Your task to perform on an android device: Open wifi settings Image 0: 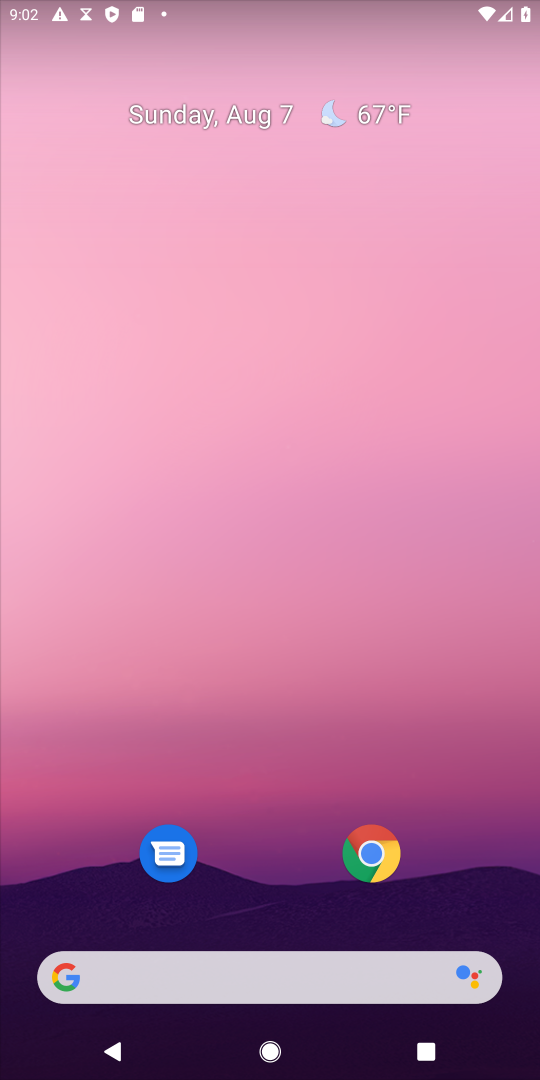
Step 0: drag from (200, 969) to (255, 546)
Your task to perform on an android device: Open wifi settings Image 1: 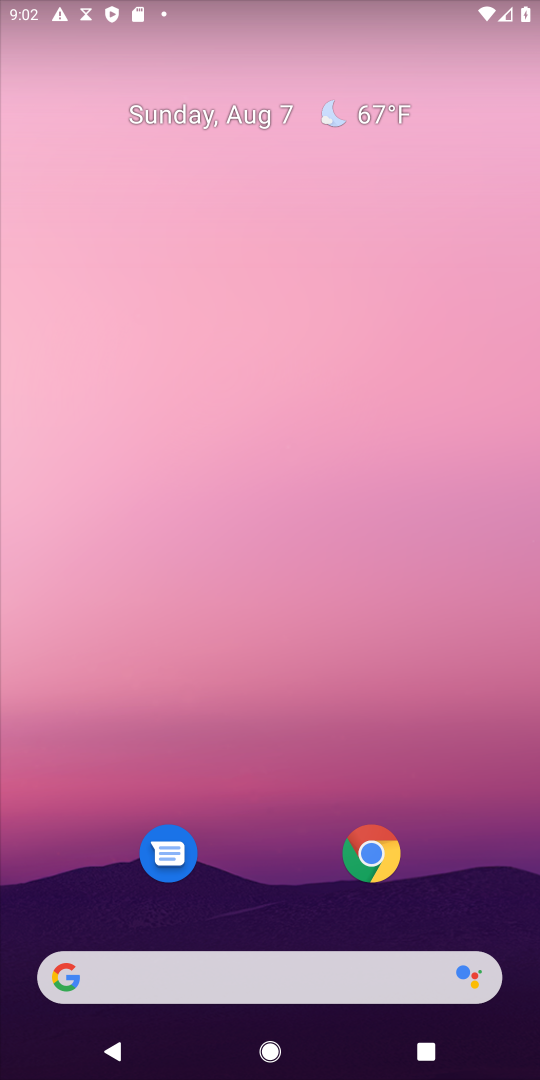
Step 1: drag from (260, 944) to (285, 72)
Your task to perform on an android device: Open wifi settings Image 2: 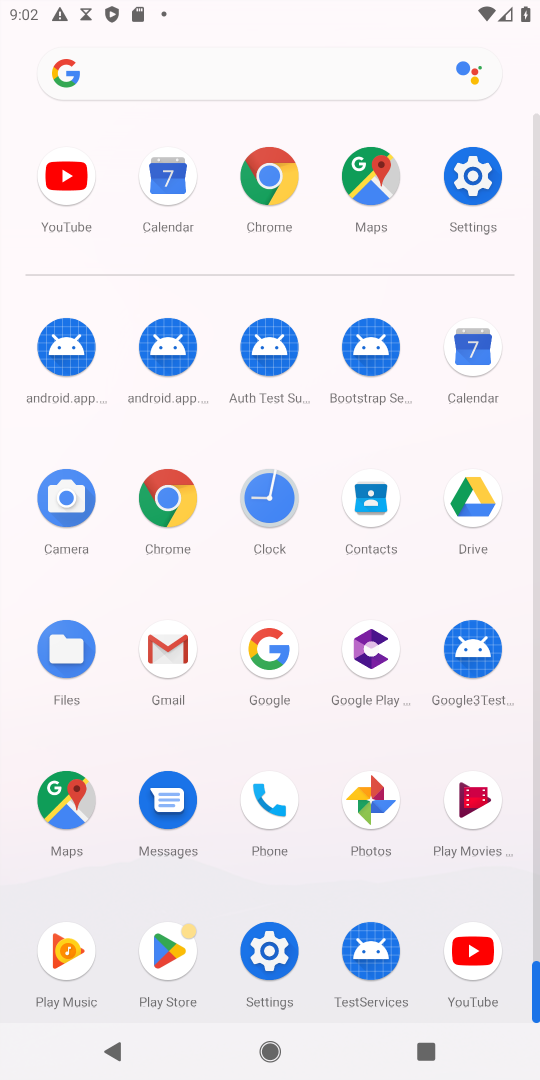
Step 2: click (489, 179)
Your task to perform on an android device: Open wifi settings Image 3: 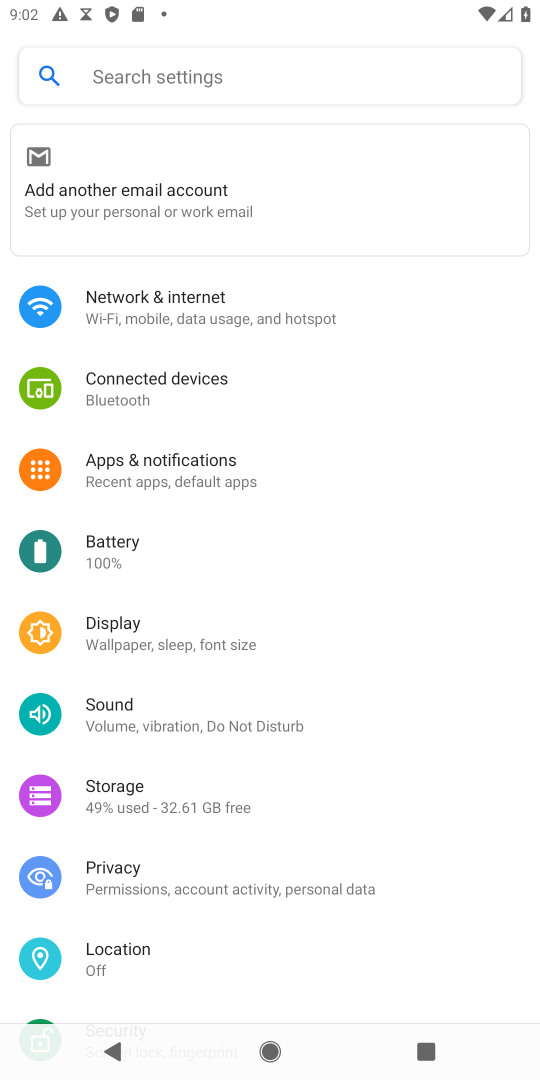
Step 3: click (190, 294)
Your task to perform on an android device: Open wifi settings Image 4: 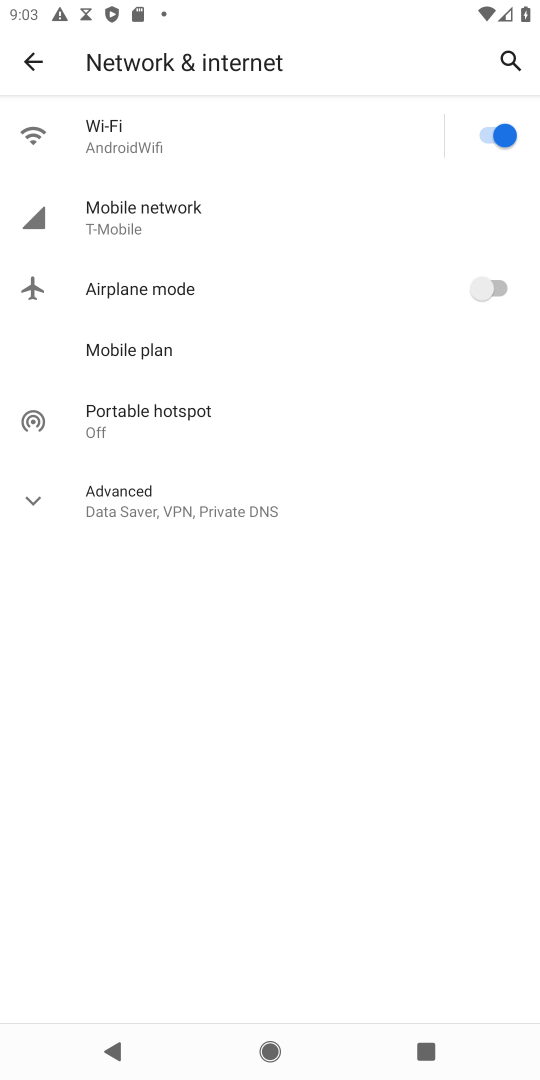
Step 4: task complete